Your task to perform on an android device: Open calendar and show me the fourth week of next month Image 0: 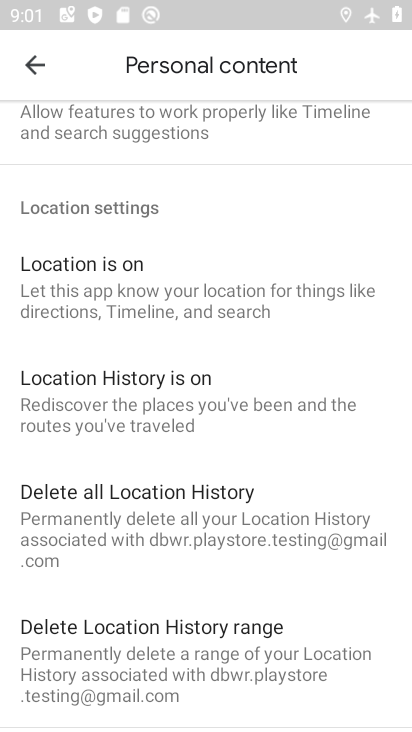
Step 0: press home button
Your task to perform on an android device: Open calendar and show me the fourth week of next month Image 1: 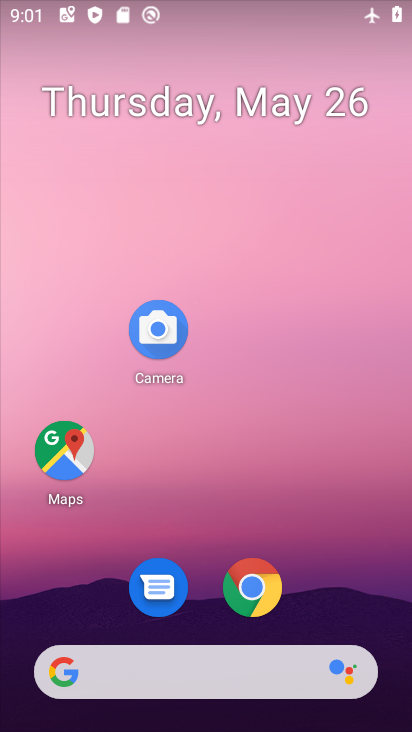
Step 1: drag from (196, 611) to (231, 202)
Your task to perform on an android device: Open calendar and show me the fourth week of next month Image 2: 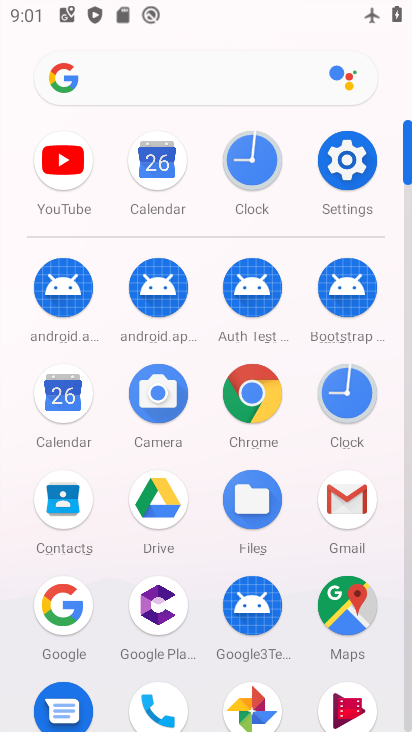
Step 2: click (179, 165)
Your task to perform on an android device: Open calendar and show me the fourth week of next month Image 3: 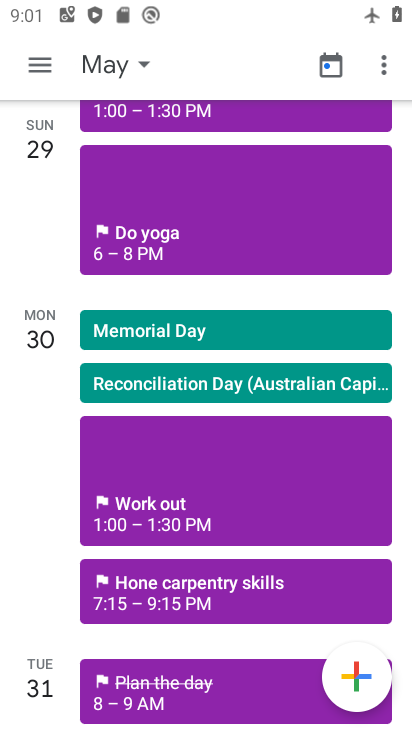
Step 3: click (147, 63)
Your task to perform on an android device: Open calendar and show me the fourth week of next month Image 4: 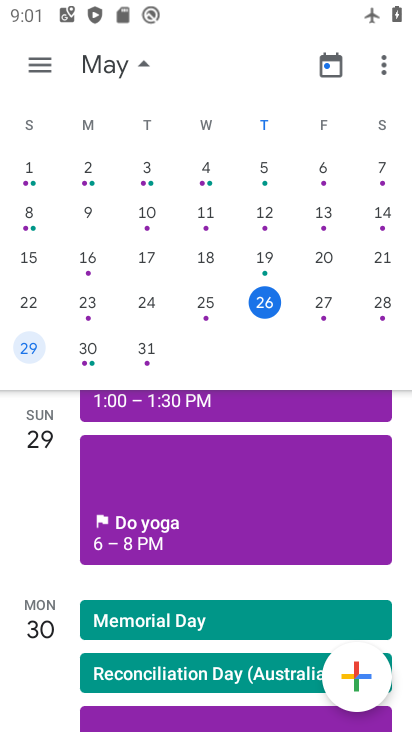
Step 4: drag from (346, 220) to (64, 200)
Your task to perform on an android device: Open calendar and show me the fourth week of next month Image 5: 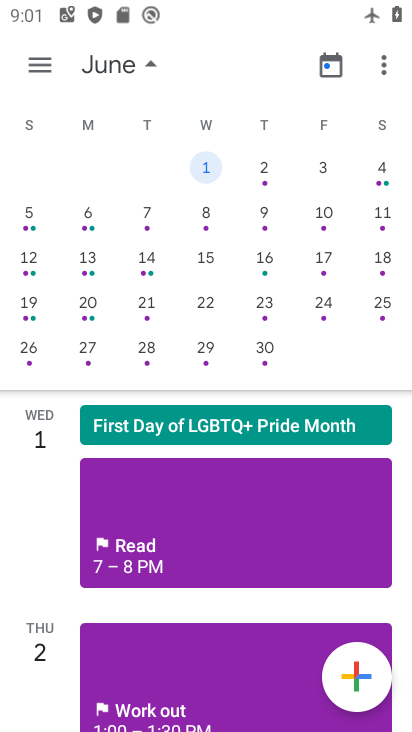
Step 5: click (29, 310)
Your task to perform on an android device: Open calendar and show me the fourth week of next month Image 6: 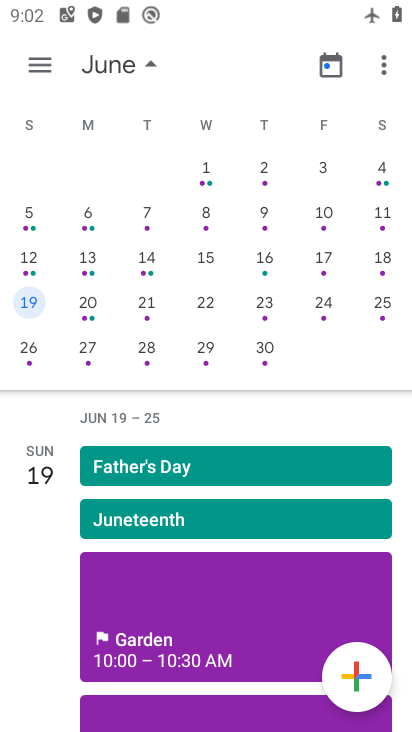
Step 6: task complete